Your task to perform on an android device: turn off smart reply in the gmail app Image 0: 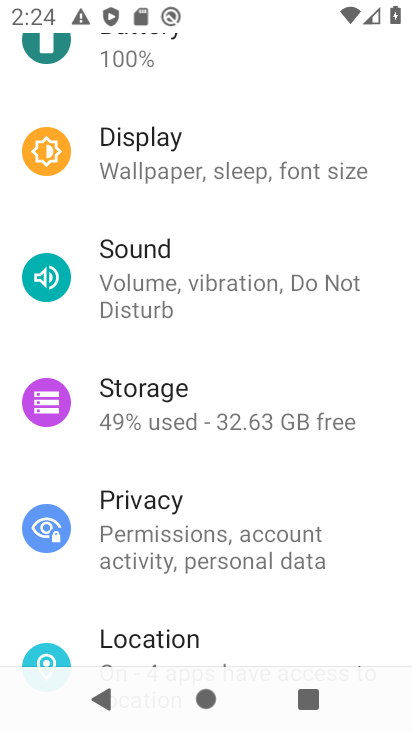
Step 0: press home button
Your task to perform on an android device: turn off smart reply in the gmail app Image 1: 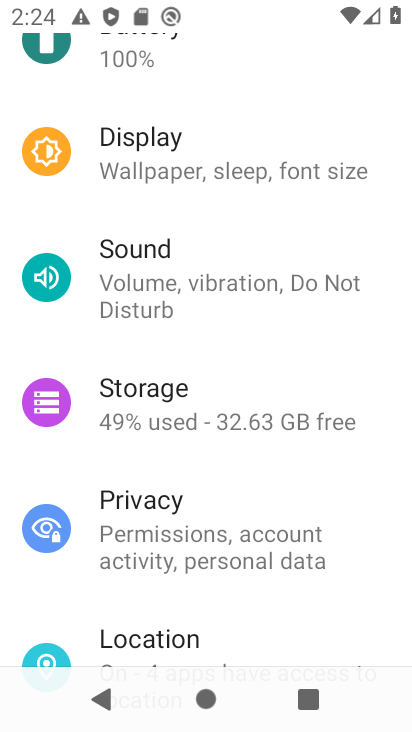
Step 1: press home button
Your task to perform on an android device: turn off smart reply in the gmail app Image 2: 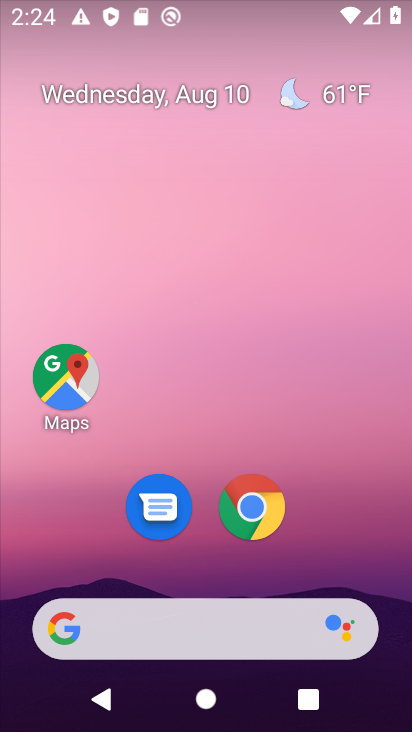
Step 2: drag from (332, 493) to (207, 14)
Your task to perform on an android device: turn off smart reply in the gmail app Image 3: 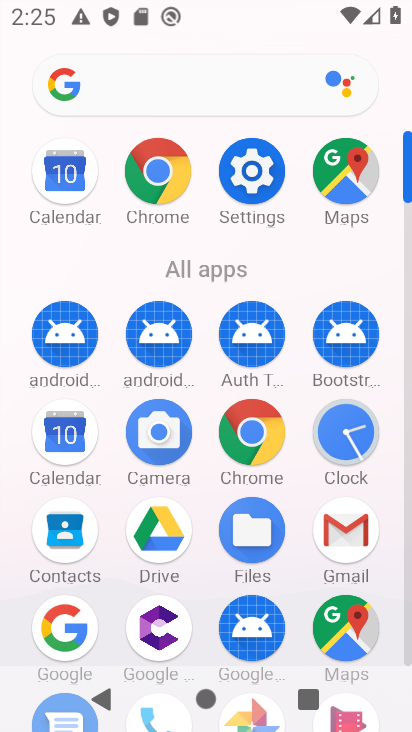
Step 3: click (344, 527)
Your task to perform on an android device: turn off smart reply in the gmail app Image 4: 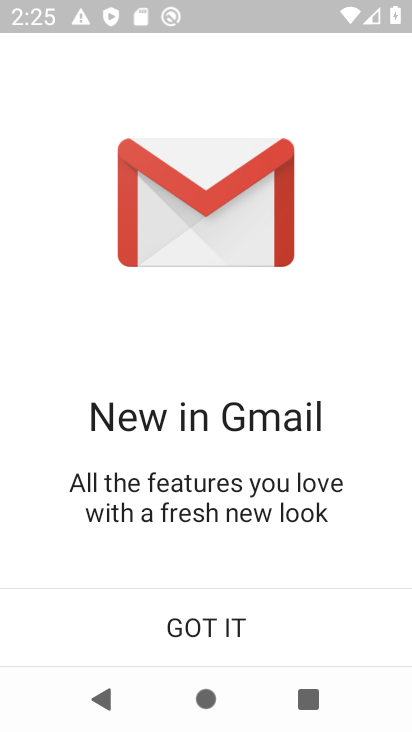
Step 4: click (210, 620)
Your task to perform on an android device: turn off smart reply in the gmail app Image 5: 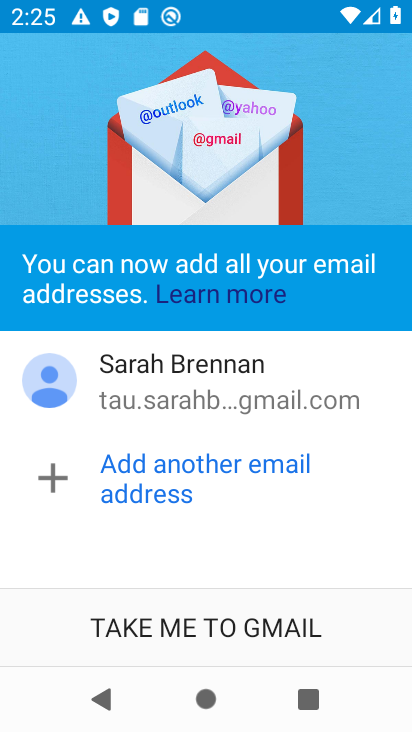
Step 5: click (248, 628)
Your task to perform on an android device: turn off smart reply in the gmail app Image 6: 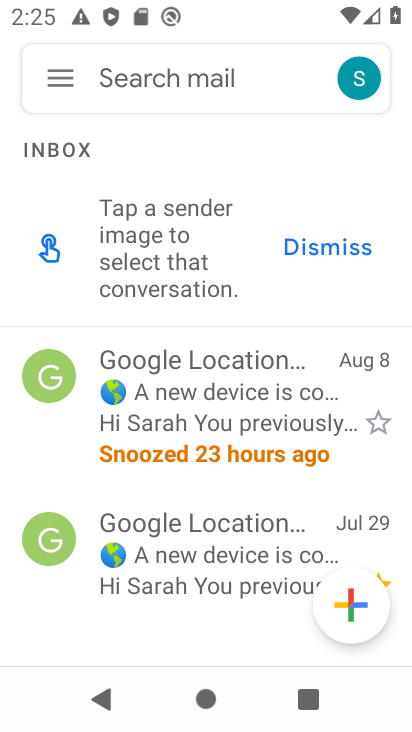
Step 6: click (59, 76)
Your task to perform on an android device: turn off smart reply in the gmail app Image 7: 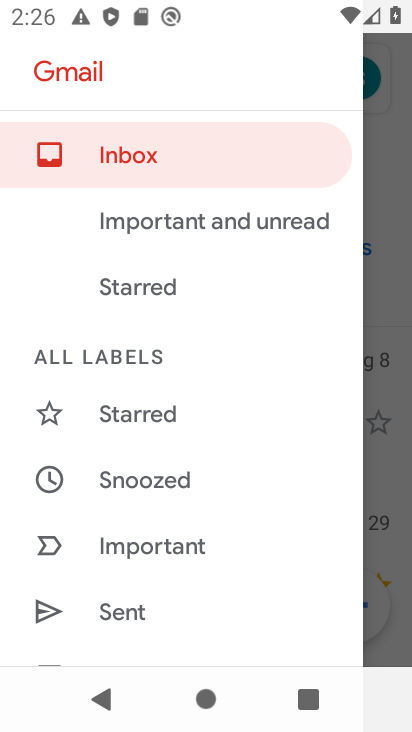
Step 7: drag from (225, 507) to (291, 8)
Your task to perform on an android device: turn off smart reply in the gmail app Image 8: 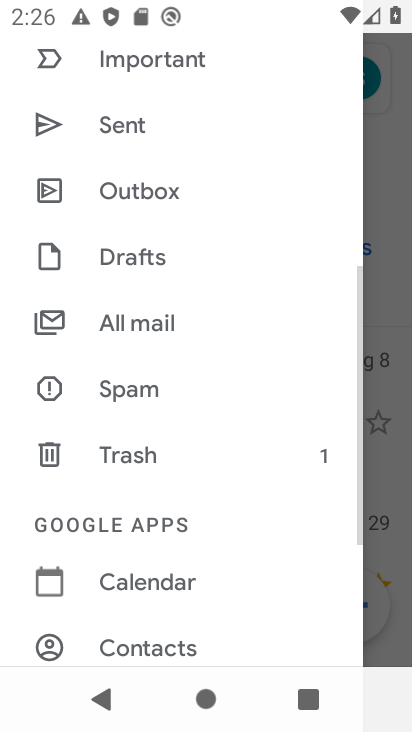
Step 8: drag from (205, 573) to (225, 92)
Your task to perform on an android device: turn off smart reply in the gmail app Image 9: 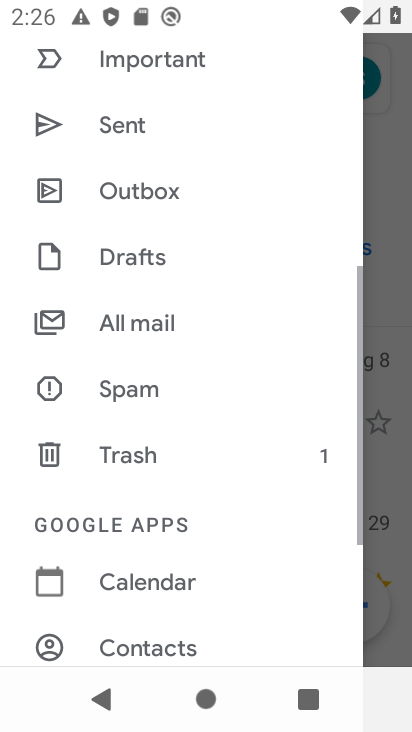
Step 9: drag from (69, 575) to (224, 83)
Your task to perform on an android device: turn off smart reply in the gmail app Image 10: 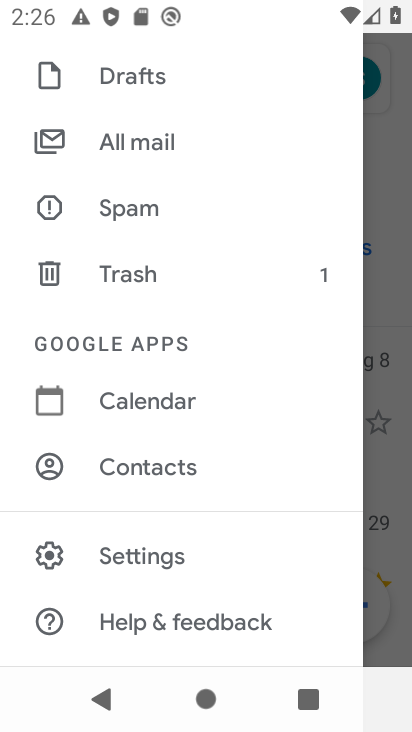
Step 10: click (155, 567)
Your task to perform on an android device: turn off smart reply in the gmail app Image 11: 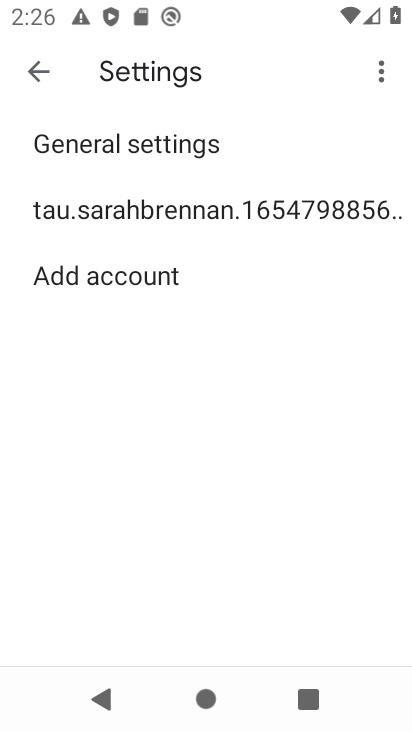
Step 11: click (242, 202)
Your task to perform on an android device: turn off smart reply in the gmail app Image 12: 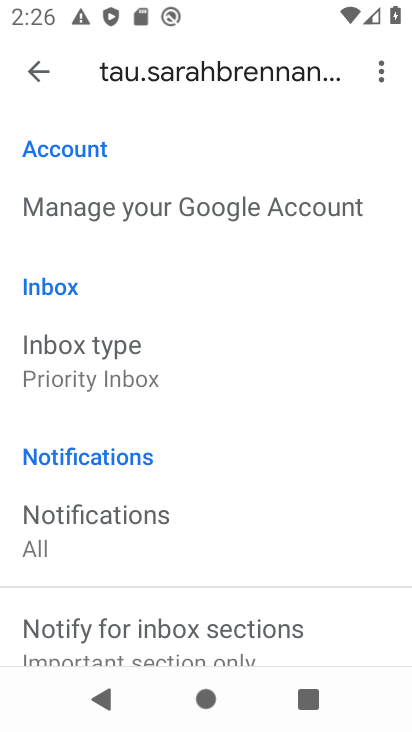
Step 12: drag from (232, 521) to (303, 18)
Your task to perform on an android device: turn off smart reply in the gmail app Image 13: 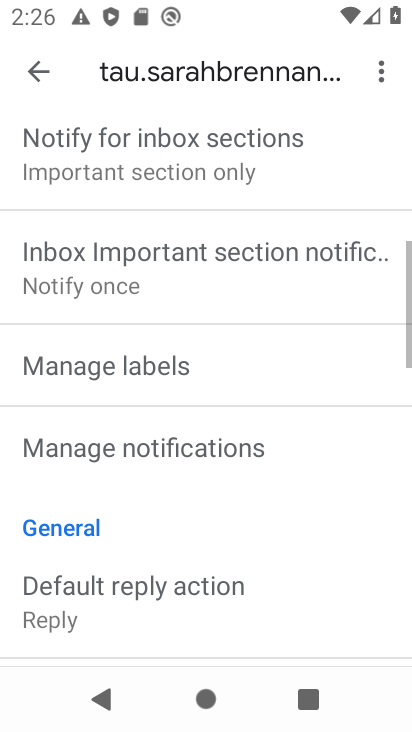
Step 13: drag from (254, 317) to (303, 11)
Your task to perform on an android device: turn off smart reply in the gmail app Image 14: 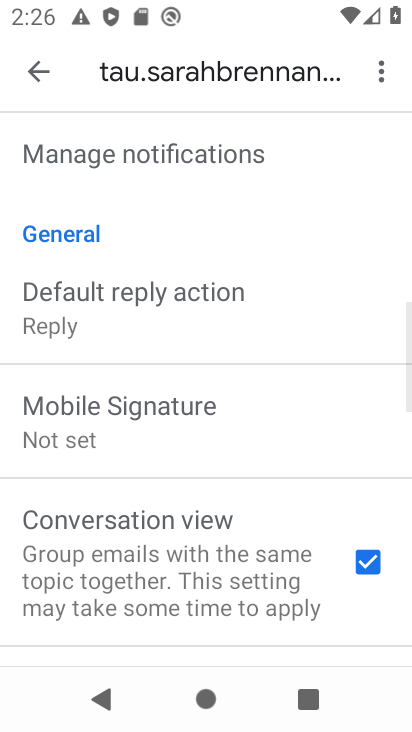
Step 14: drag from (224, 469) to (305, 11)
Your task to perform on an android device: turn off smart reply in the gmail app Image 15: 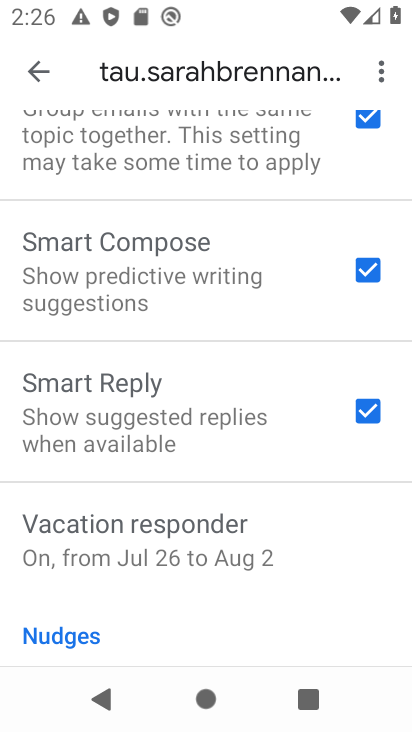
Step 15: click (373, 417)
Your task to perform on an android device: turn off smart reply in the gmail app Image 16: 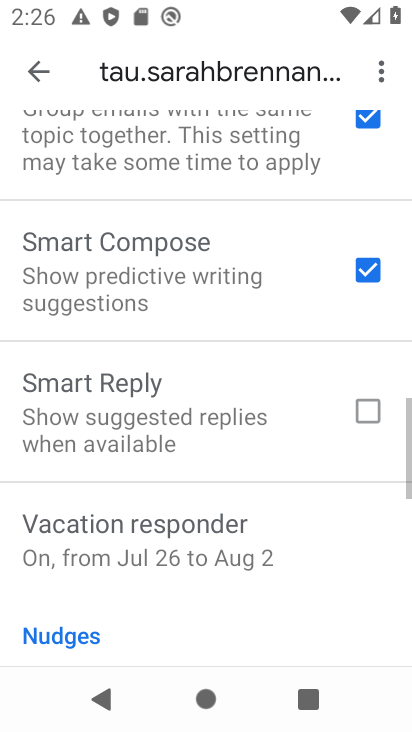
Step 16: task complete